Your task to perform on an android device: What's on my calendar today? Image 0: 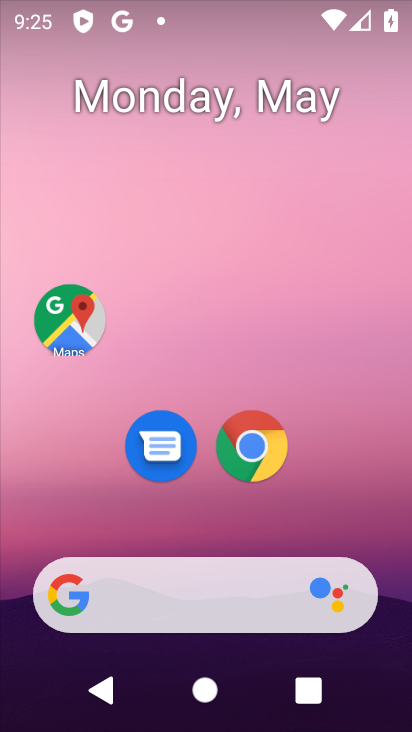
Step 0: drag from (78, 447) to (161, 43)
Your task to perform on an android device: What's on my calendar today? Image 1: 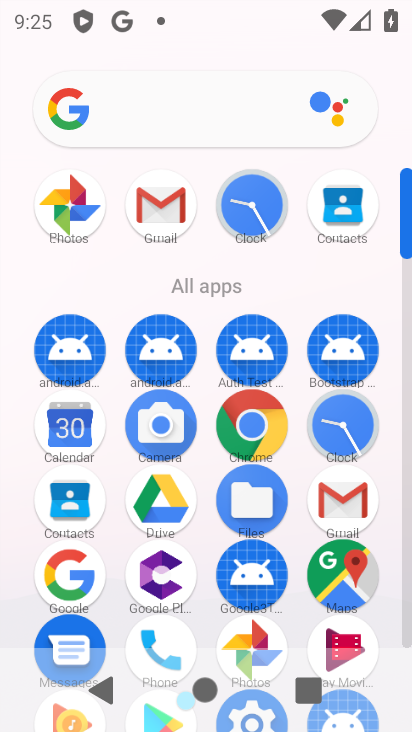
Step 1: click (77, 438)
Your task to perform on an android device: What's on my calendar today? Image 2: 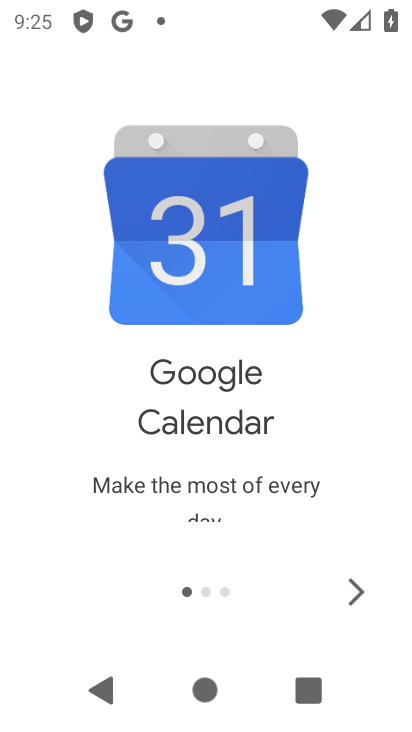
Step 2: click (360, 603)
Your task to perform on an android device: What's on my calendar today? Image 3: 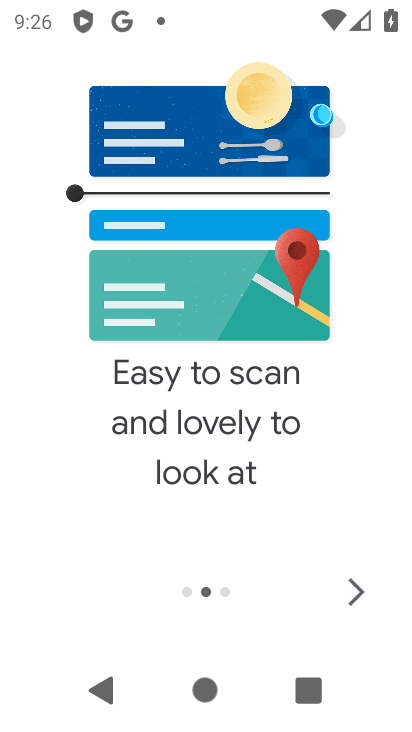
Step 3: click (360, 603)
Your task to perform on an android device: What's on my calendar today? Image 4: 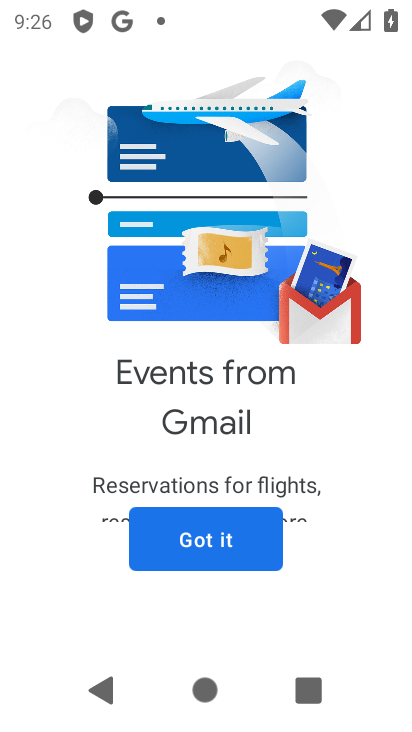
Step 4: click (252, 554)
Your task to perform on an android device: What's on my calendar today? Image 5: 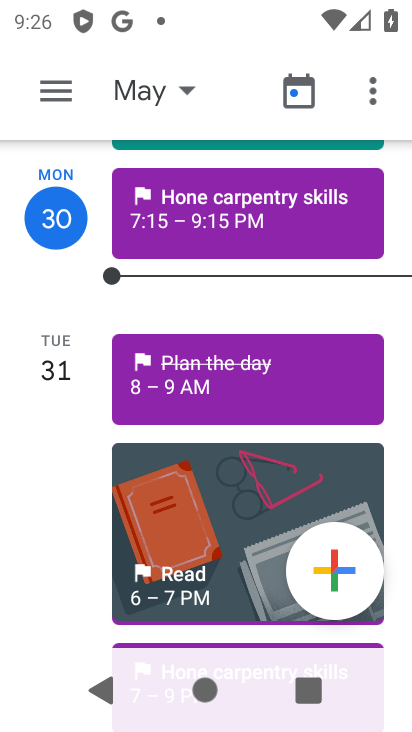
Step 5: task complete